Your task to perform on an android device: change alarm snooze length Image 0: 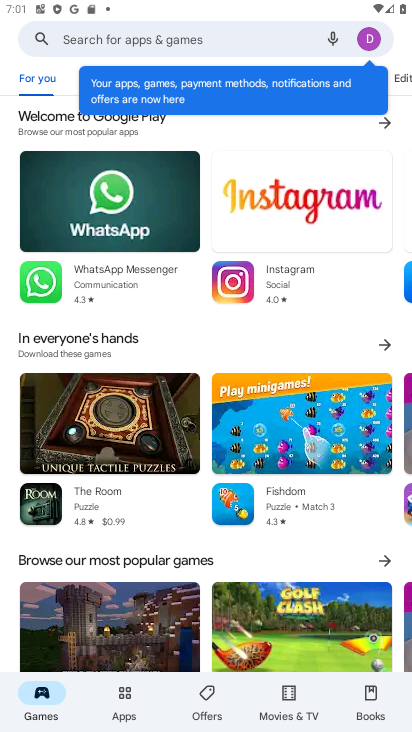
Step 0: press home button
Your task to perform on an android device: change alarm snooze length Image 1: 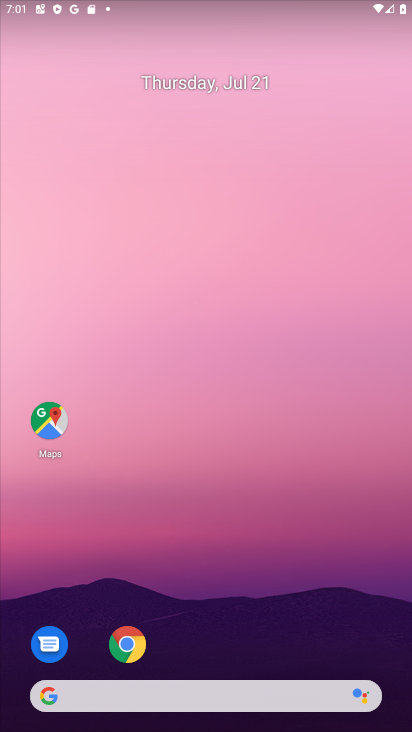
Step 1: drag from (287, 603) to (278, 183)
Your task to perform on an android device: change alarm snooze length Image 2: 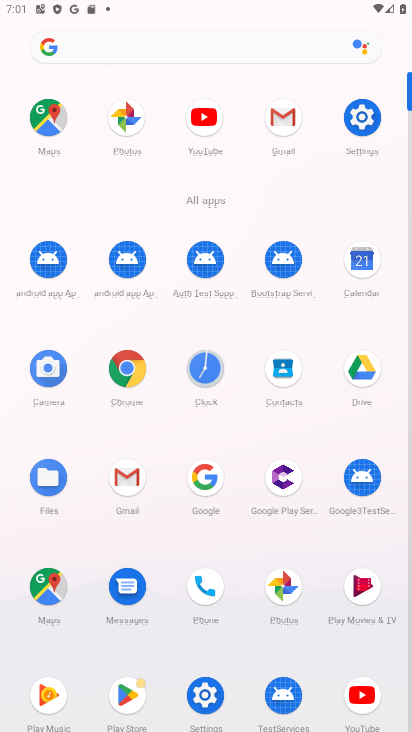
Step 2: click (216, 370)
Your task to perform on an android device: change alarm snooze length Image 3: 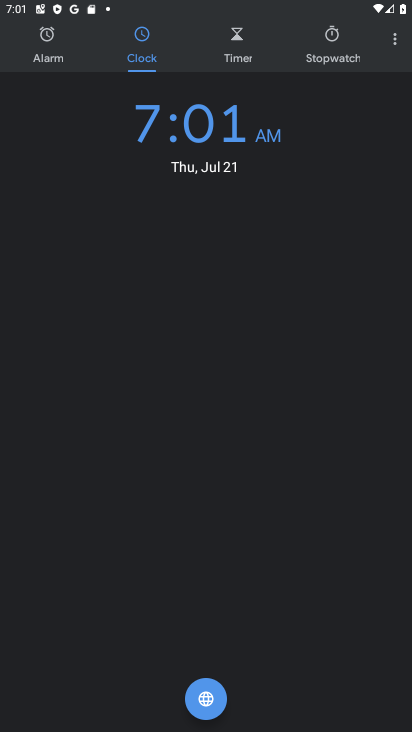
Step 3: click (397, 32)
Your task to perform on an android device: change alarm snooze length Image 4: 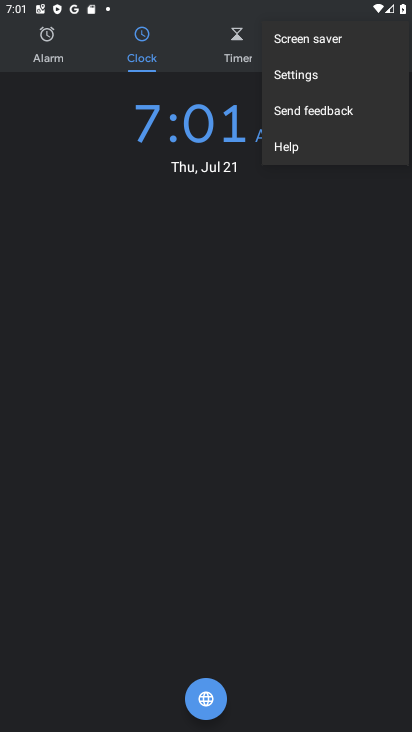
Step 4: click (309, 79)
Your task to perform on an android device: change alarm snooze length Image 5: 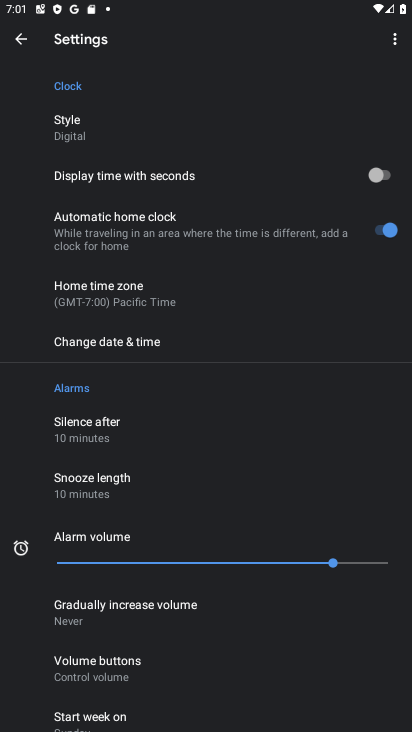
Step 5: click (151, 485)
Your task to perform on an android device: change alarm snooze length Image 6: 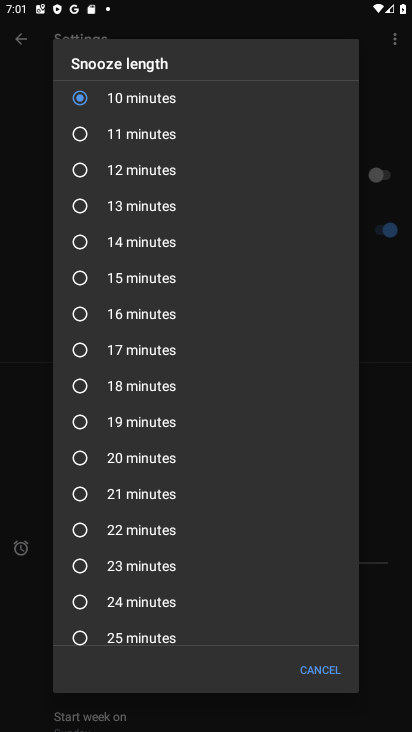
Step 6: click (117, 394)
Your task to perform on an android device: change alarm snooze length Image 7: 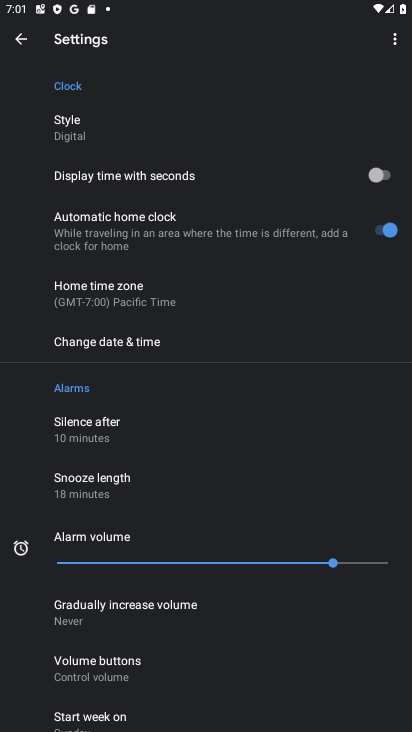
Step 7: task complete